Your task to perform on an android device: Open calendar and show me the fourth week of next month Image 0: 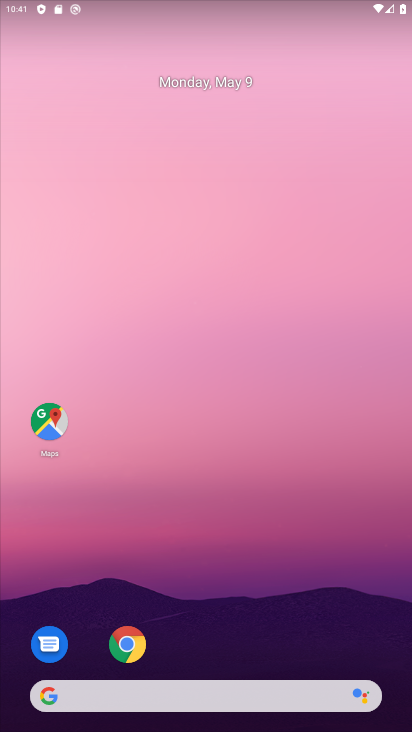
Step 0: drag from (261, 658) to (302, 64)
Your task to perform on an android device: Open calendar and show me the fourth week of next month Image 1: 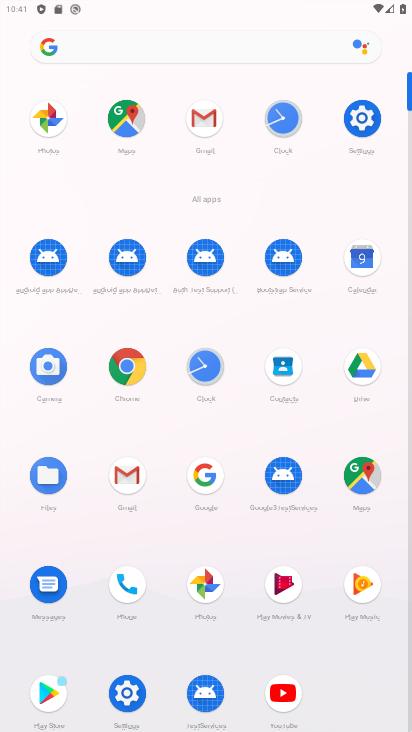
Step 1: click (369, 271)
Your task to perform on an android device: Open calendar and show me the fourth week of next month Image 2: 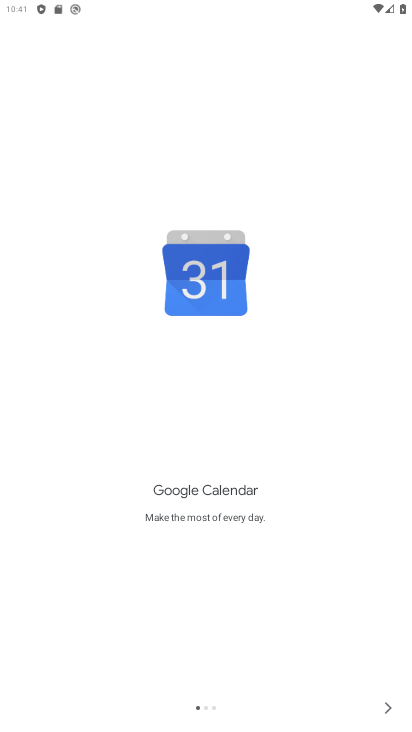
Step 2: click (390, 708)
Your task to perform on an android device: Open calendar and show me the fourth week of next month Image 3: 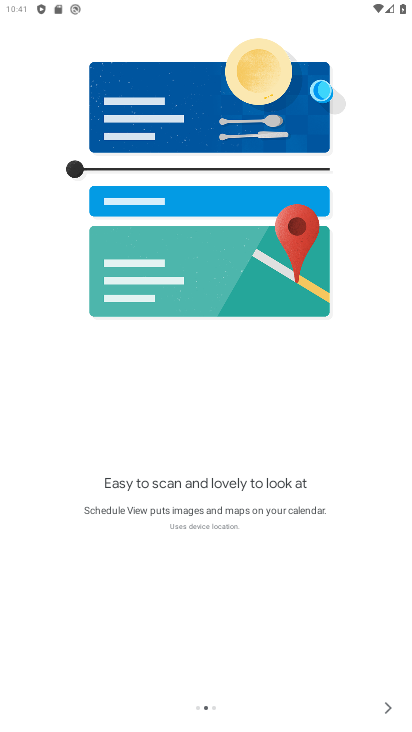
Step 3: click (386, 709)
Your task to perform on an android device: Open calendar and show me the fourth week of next month Image 4: 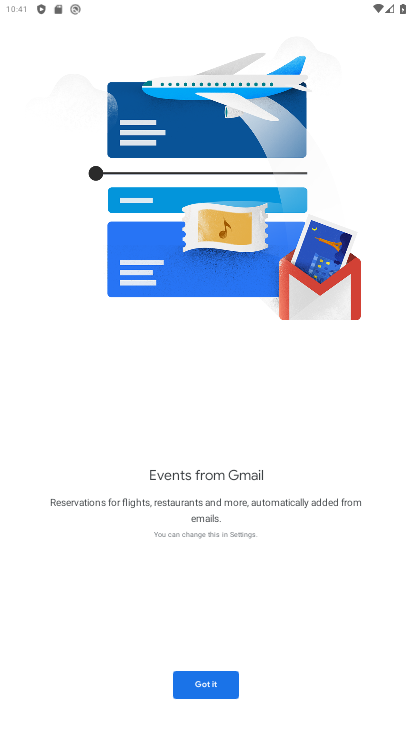
Step 4: click (198, 686)
Your task to perform on an android device: Open calendar and show me the fourth week of next month Image 5: 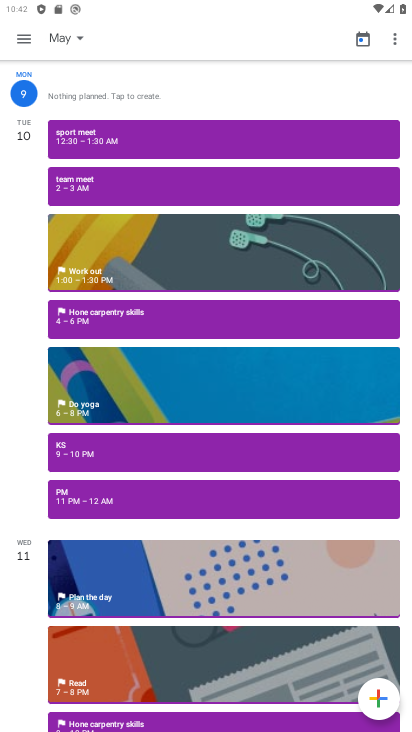
Step 5: click (33, 41)
Your task to perform on an android device: Open calendar and show me the fourth week of next month Image 6: 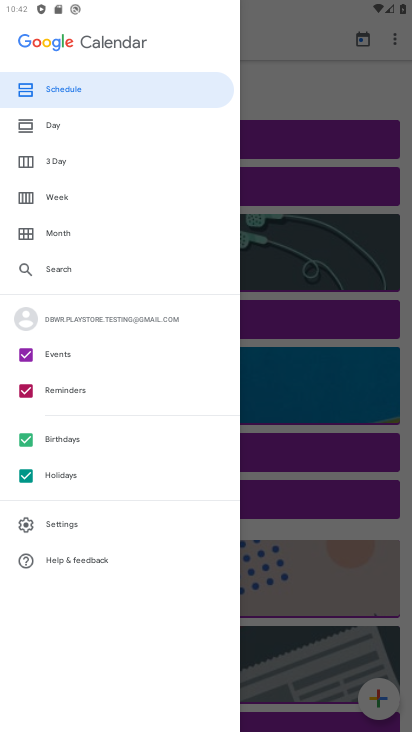
Step 6: click (84, 198)
Your task to perform on an android device: Open calendar and show me the fourth week of next month Image 7: 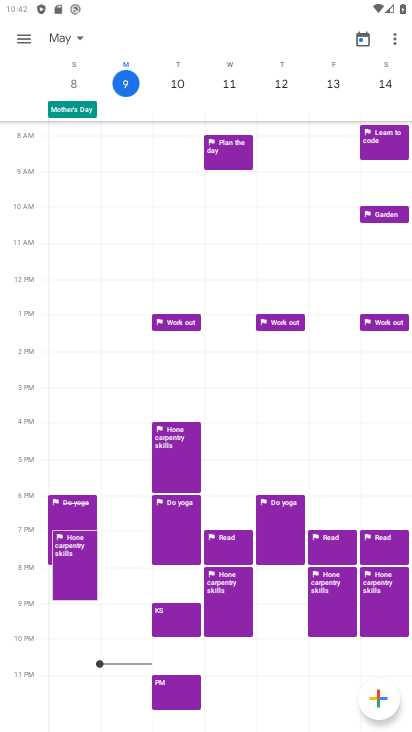
Step 7: task complete